Your task to perform on an android device: create a new album in the google photos Image 0: 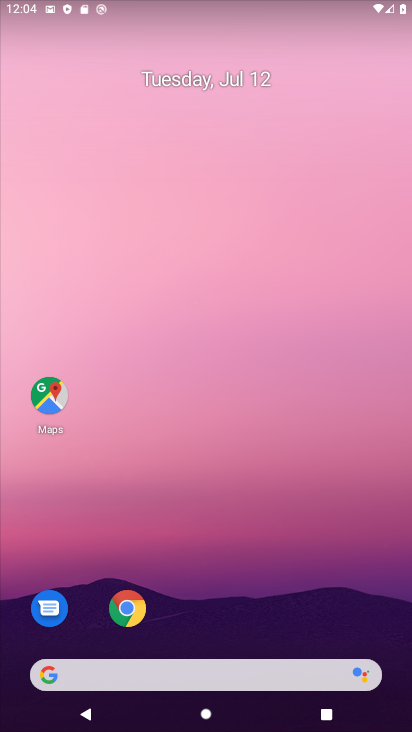
Step 0: drag from (193, 639) to (169, 10)
Your task to perform on an android device: create a new album in the google photos Image 1: 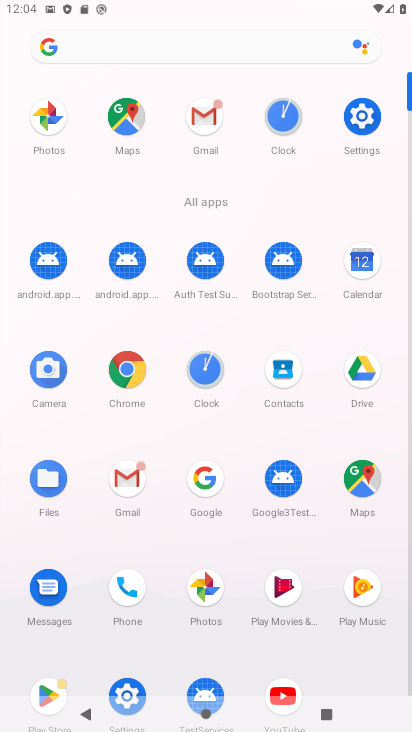
Step 1: click (215, 585)
Your task to perform on an android device: create a new album in the google photos Image 2: 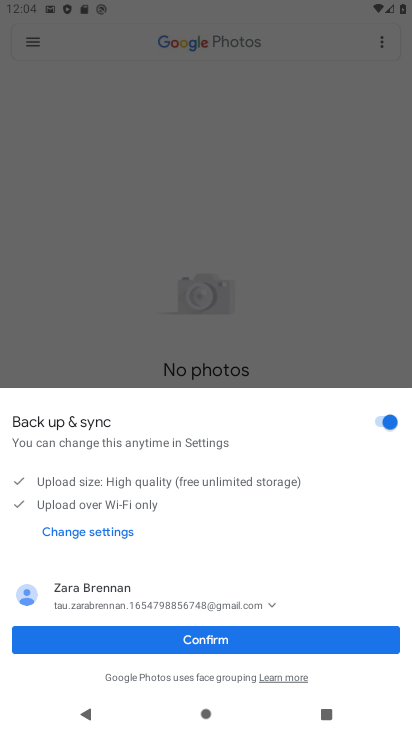
Step 2: click (228, 648)
Your task to perform on an android device: create a new album in the google photos Image 3: 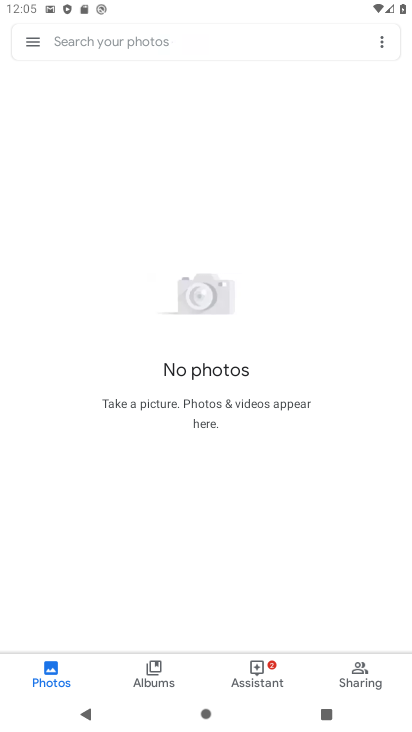
Step 3: click (139, 669)
Your task to perform on an android device: create a new album in the google photos Image 4: 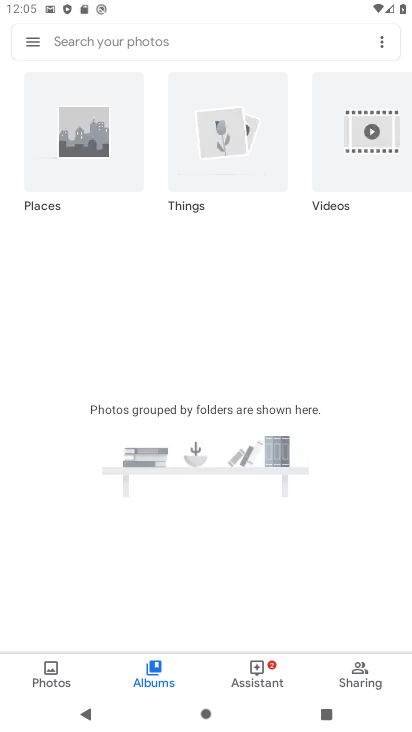
Step 4: click (130, 669)
Your task to perform on an android device: create a new album in the google photos Image 5: 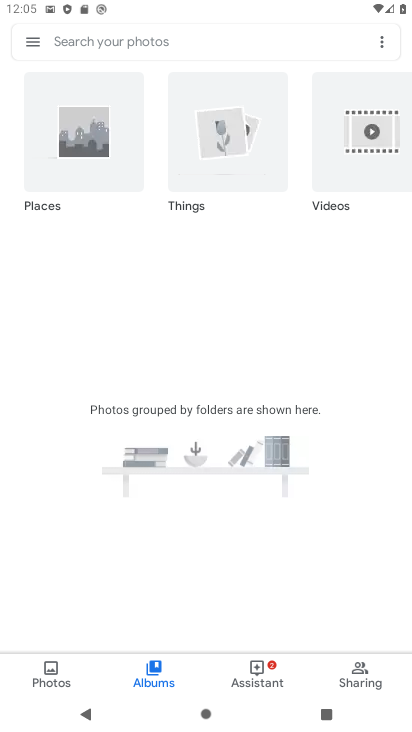
Step 5: click (52, 663)
Your task to perform on an android device: create a new album in the google photos Image 6: 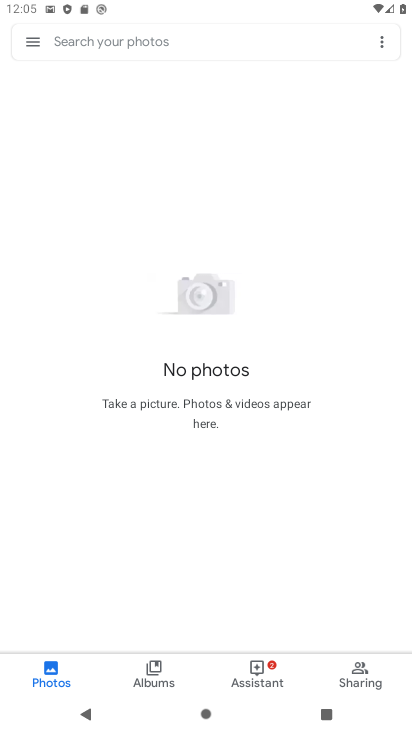
Step 6: click (28, 38)
Your task to perform on an android device: create a new album in the google photos Image 7: 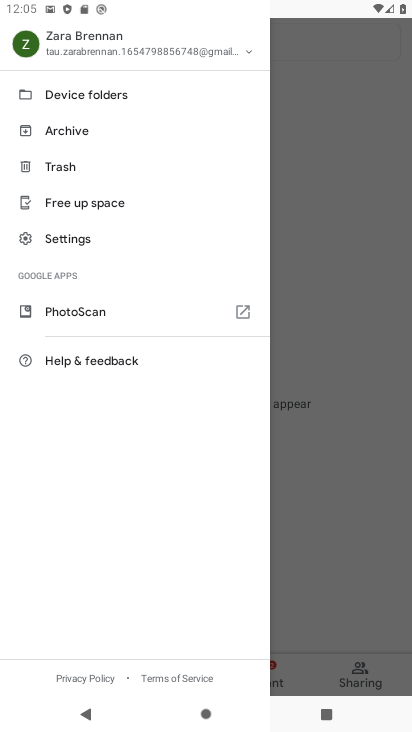
Step 7: task complete